Your task to perform on an android device: Clear the cart on ebay. Add "lenovo thinkpad" to the cart on ebay, then select checkout. Image 0: 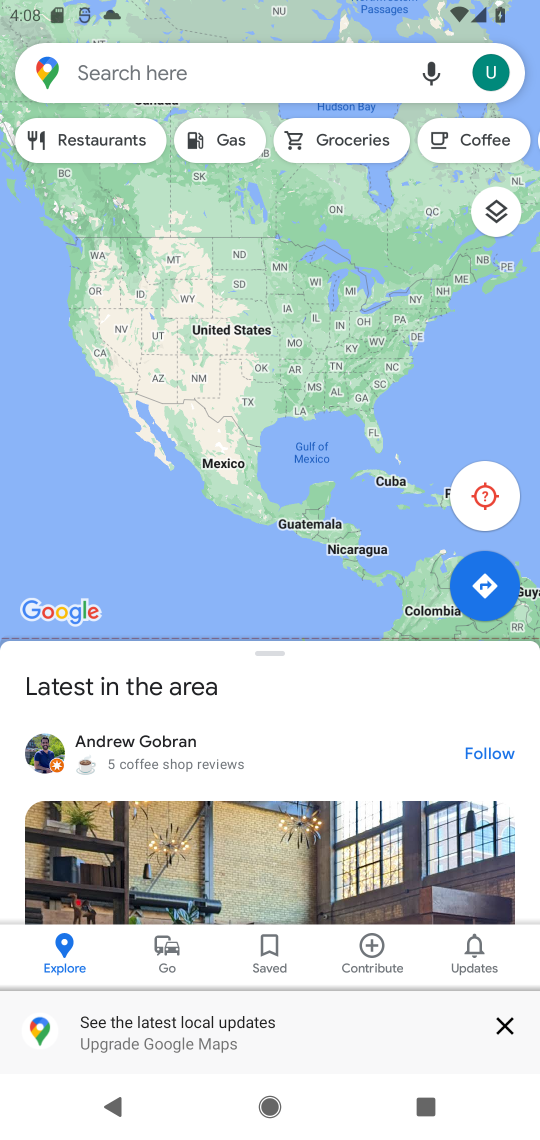
Step 0: press home button
Your task to perform on an android device: Clear the cart on ebay. Add "lenovo thinkpad" to the cart on ebay, then select checkout. Image 1: 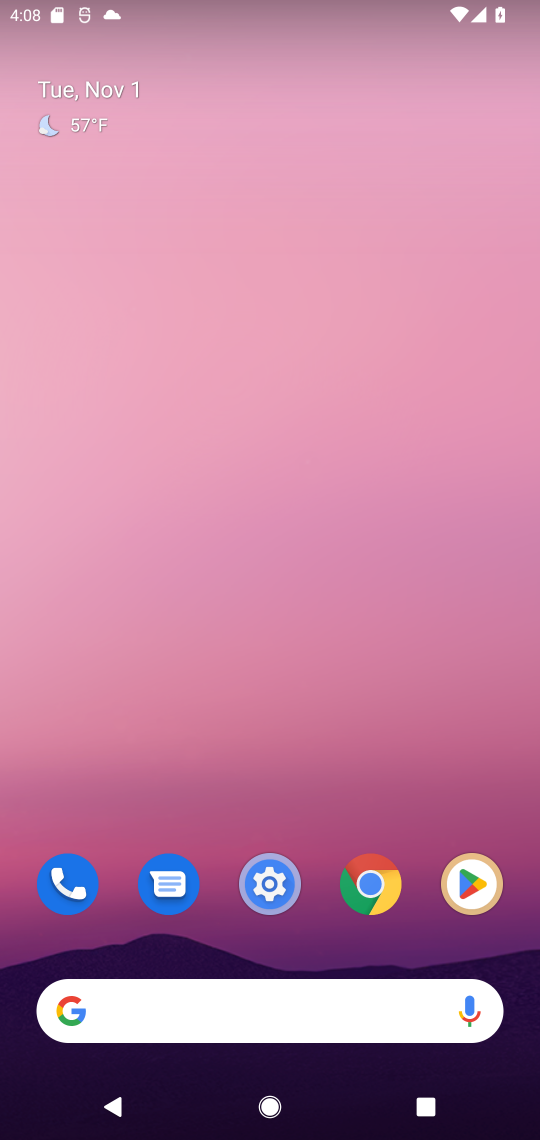
Step 1: click (102, 1015)
Your task to perform on an android device: Clear the cart on ebay. Add "lenovo thinkpad" to the cart on ebay, then select checkout. Image 2: 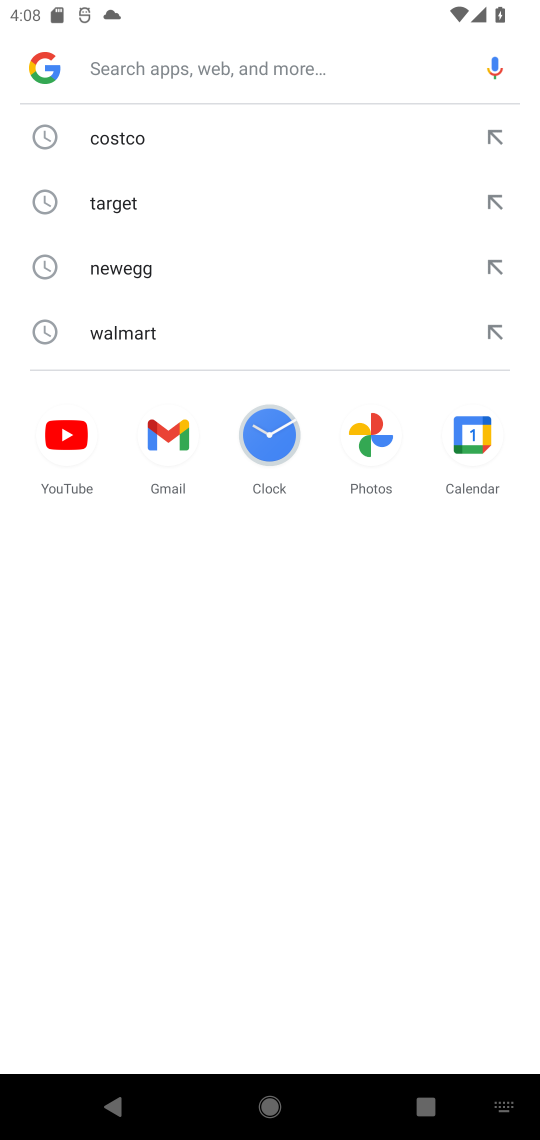
Step 2: type "ebay"
Your task to perform on an android device: Clear the cart on ebay. Add "lenovo thinkpad" to the cart on ebay, then select checkout. Image 3: 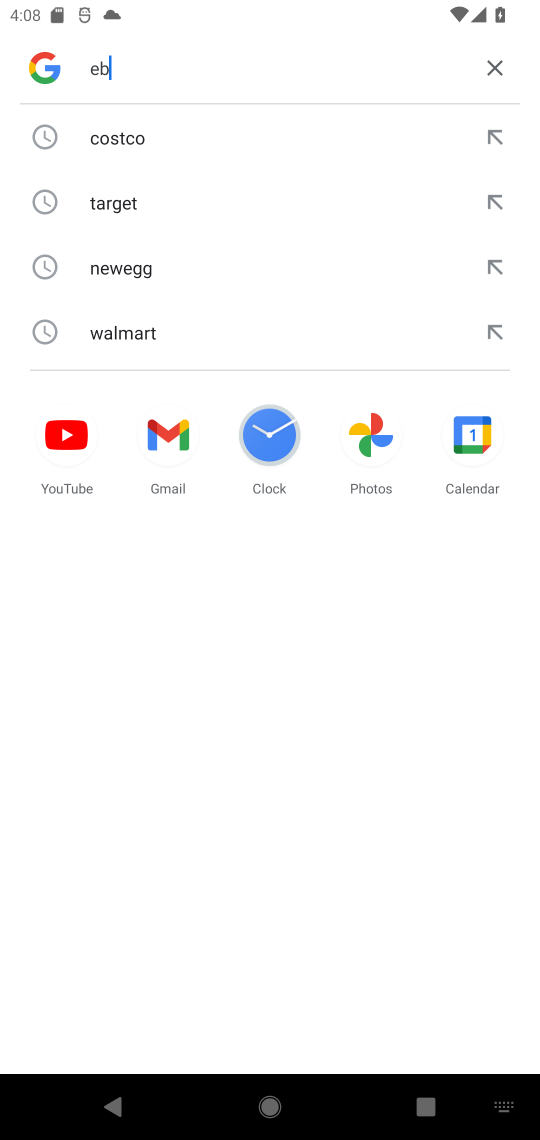
Step 3: press enter
Your task to perform on an android device: Clear the cart on ebay. Add "lenovo thinkpad" to the cart on ebay, then select checkout. Image 4: 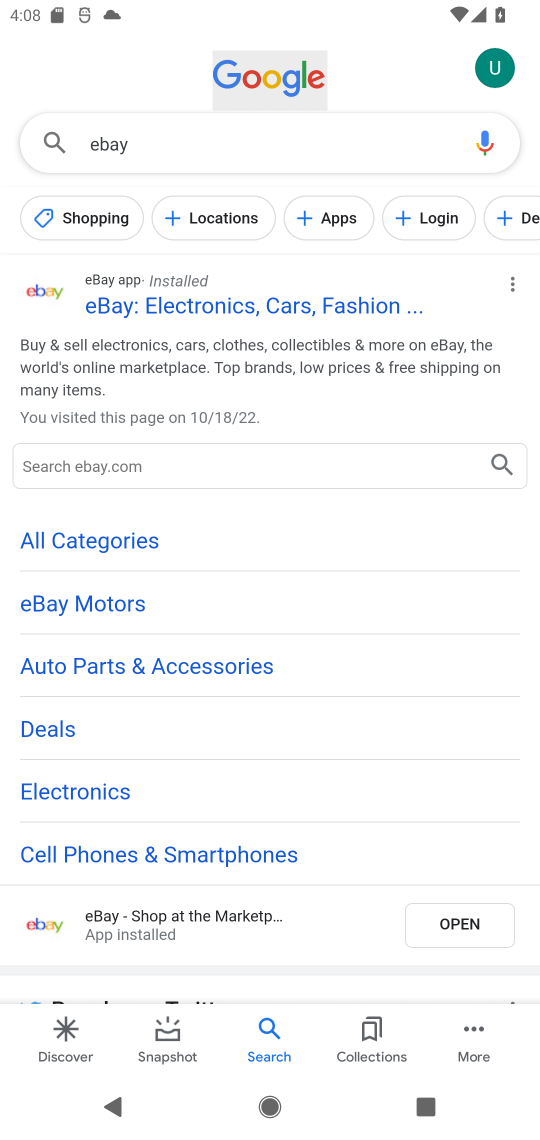
Step 4: click (128, 525)
Your task to perform on an android device: Clear the cart on ebay. Add "lenovo thinkpad" to the cart on ebay, then select checkout. Image 5: 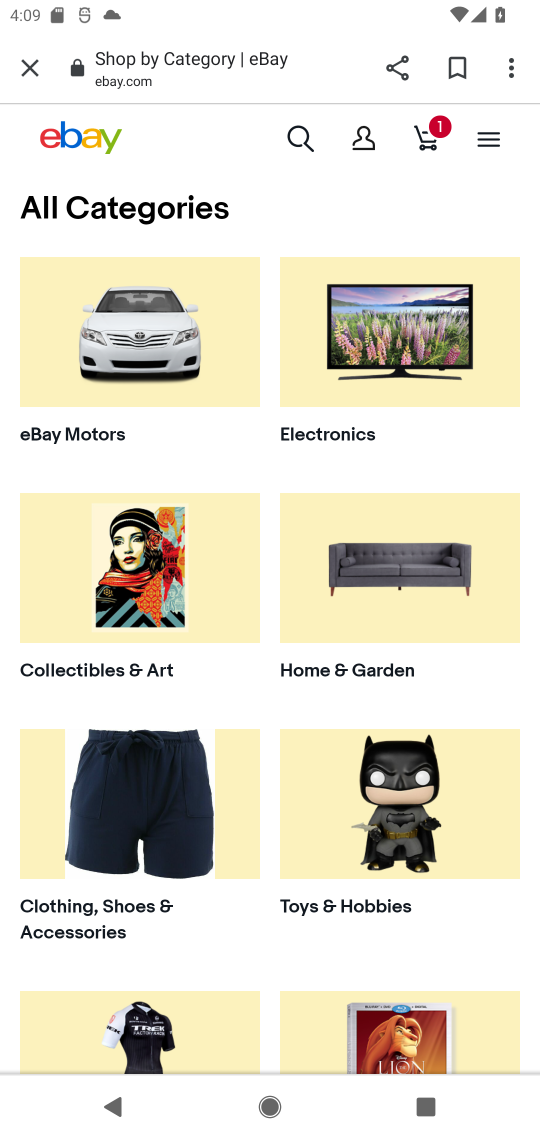
Step 5: click (430, 128)
Your task to perform on an android device: Clear the cart on ebay. Add "lenovo thinkpad" to the cart on ebay, then select checkout. Image 6: 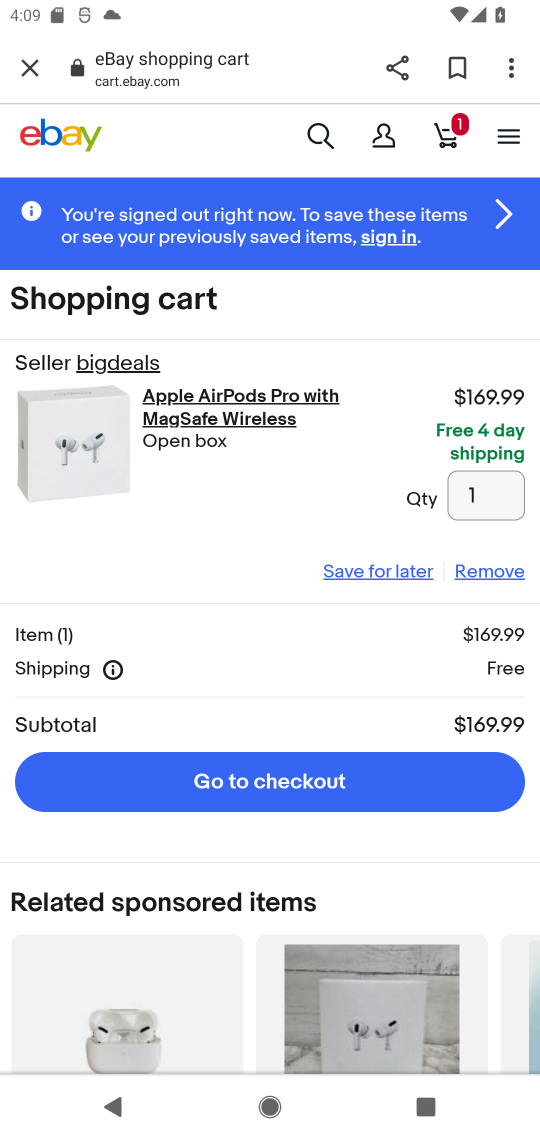
Step 6: click (506, 569)
Your task to perform on an android device: Clear the cart on ebay. Add "lenovo thinkpad" to the cart on ebay, then select checkout. Image 7: 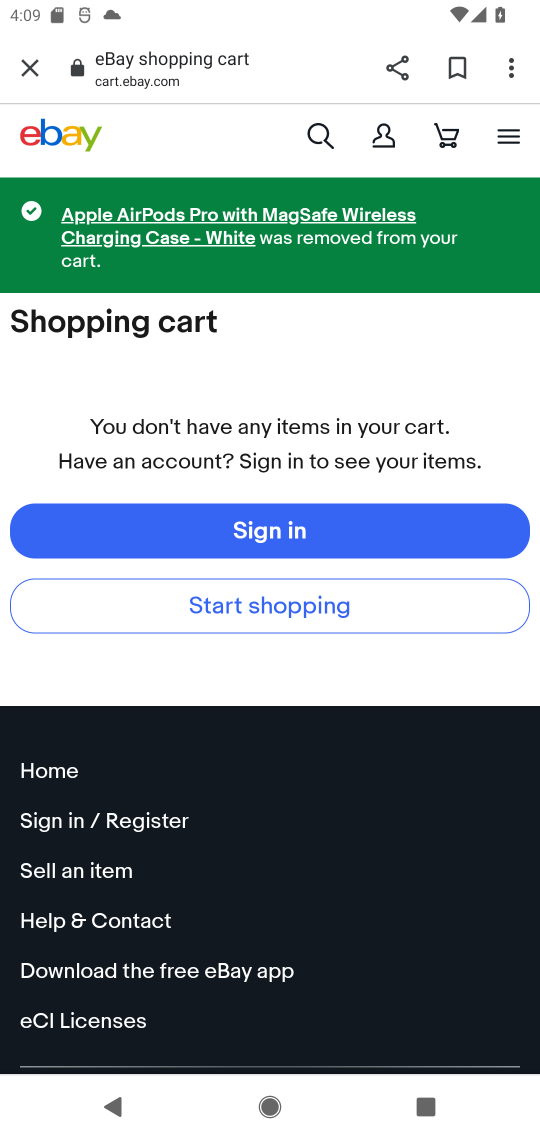
Step 7: click (311, 125)
Your task to perform on an android device: Clear the cart on ebay. Add "lenovo thinkpad" to the cart on ebay, then select checkout. Image 8: 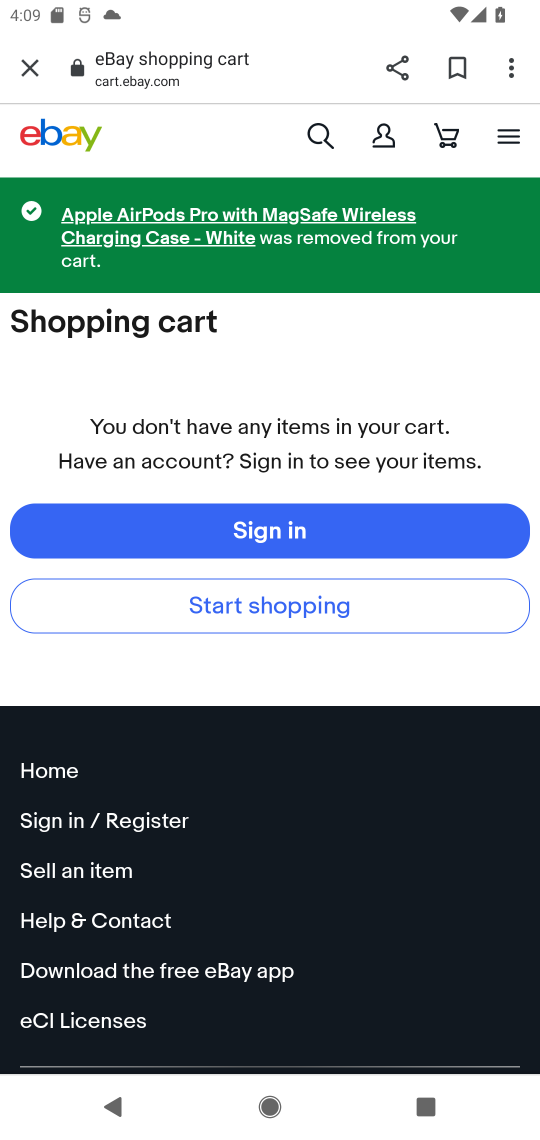
Step 8: click (322, 128)
Your task to perform on an android device: Clear the cart on ebay. Add "lenovo thinkpad" to the cart on ebay, then select checkout. Image 9: 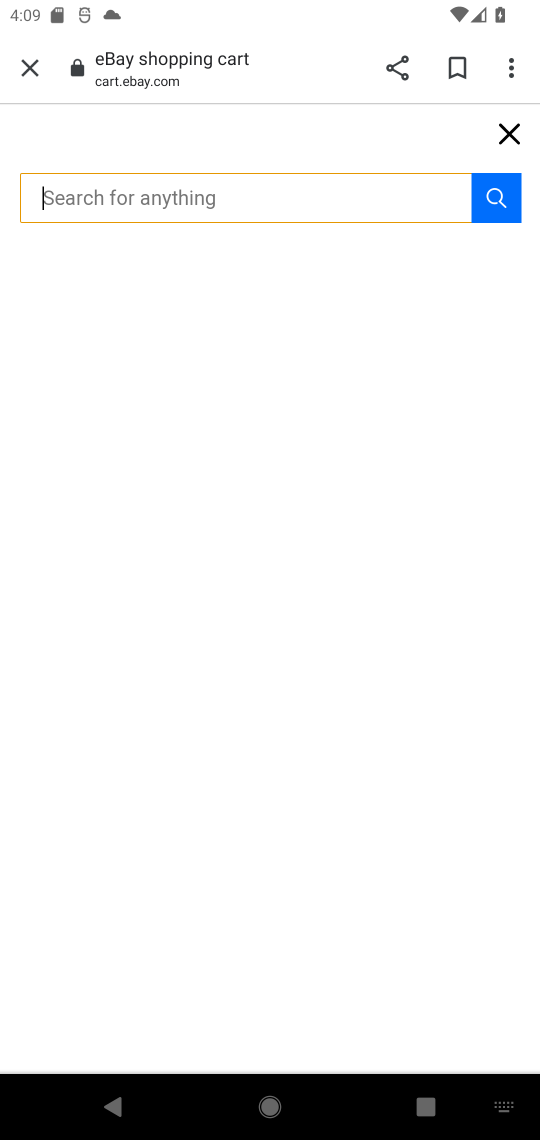
Step 9: press enter
Your task to perform on an android device: Clear the cart on ebay. Add "lenovo thinkpad" to the cart on ebay, then select checkout. Image 10: 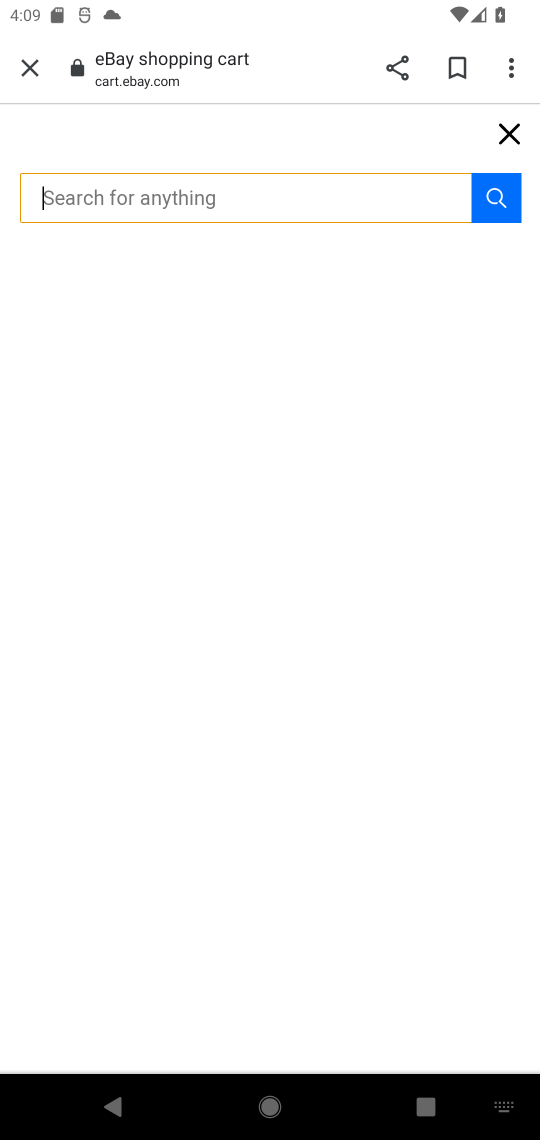
Step 10: type "lenovo thinkpad"
Your task to perform on an android device: Clear the cart on ebay. Add "lenovo thinkpad" to the cart on ebay, then select checkout. Image 11: 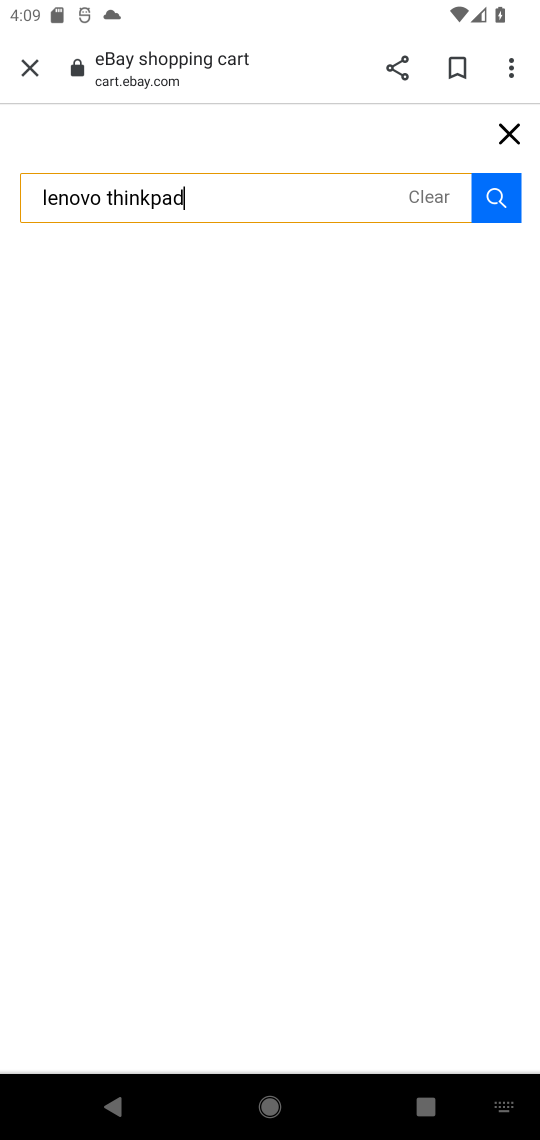
Step 11: click (494, 198)
Your task to perform on an android device: Clear the cart on ebay. Add "lenovo thinkpad" to the cart on ebay, then select checkout. Image 12: 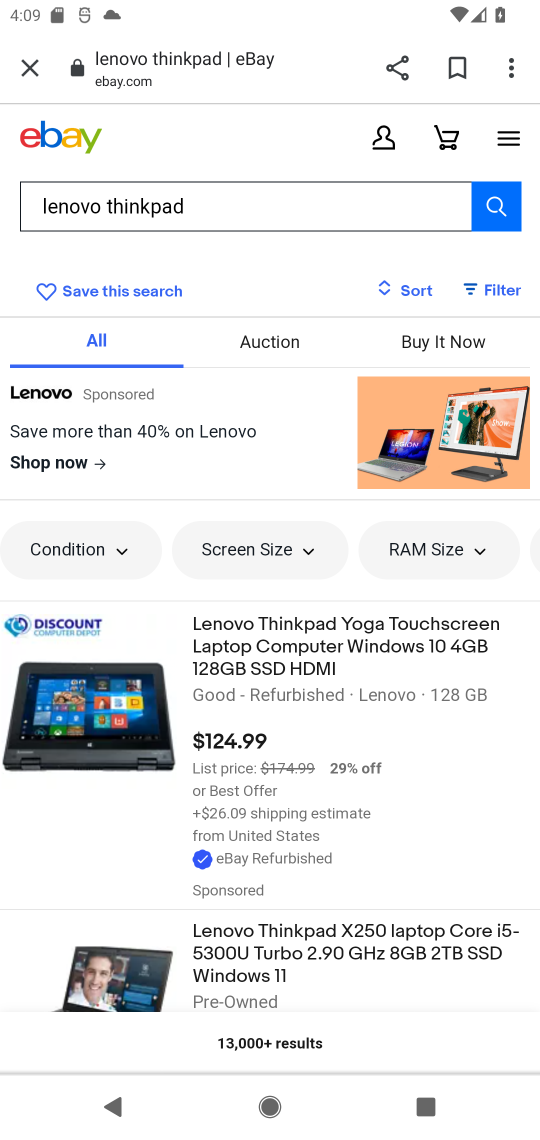
Step 12: drag from (400, 911) to (366, 629)
Your task to perform on an android device: Clear the cart on ebay. Add "lenovo thinkpad" to the cart on ebay, then select checkout. Image 13: 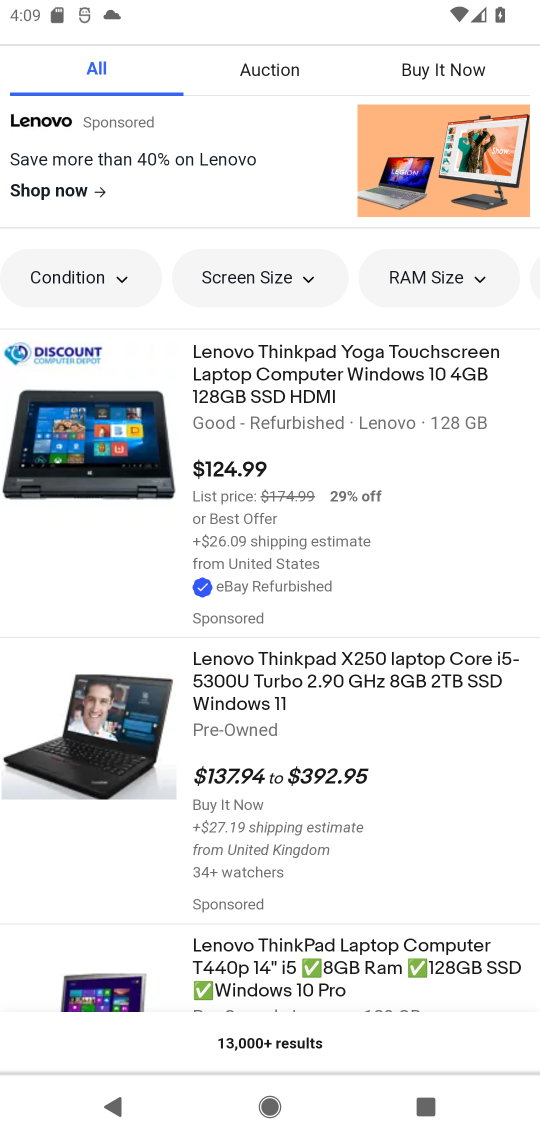
Step 13: click (291, 364)
Your task to perform on an android device: Clear the cart on ebay. Add "lenovo thinkpad" to the cart on ebay, then select checkout. Image 14: 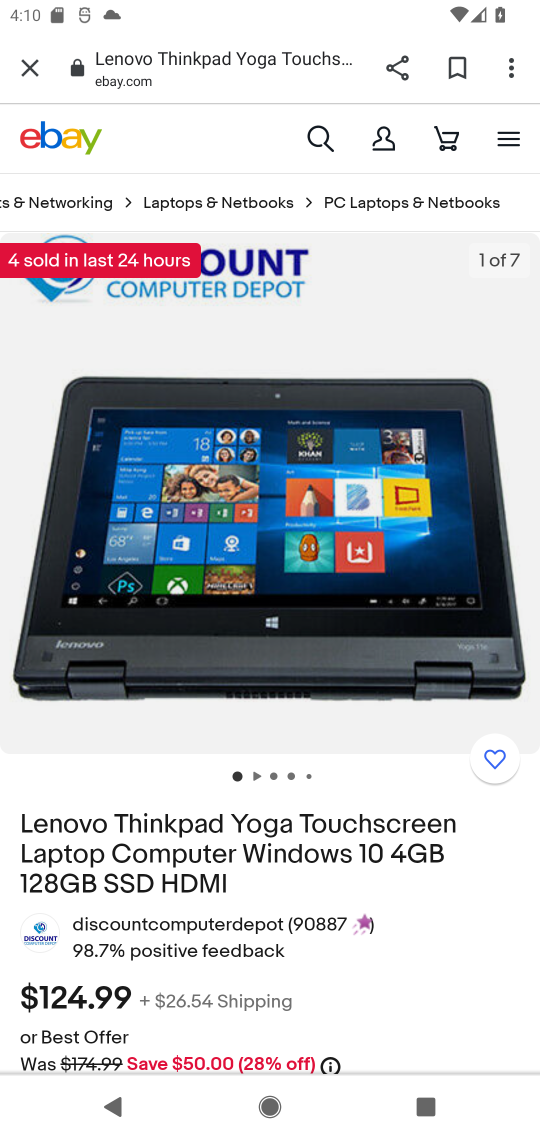
Step 14: drag from (326, 887) to (339, 463)
Your task to perform on an android device: Clear the cart on ebay. Add "lenovo thinkpad" to the cart on ebay, then select checkout. Image 15: 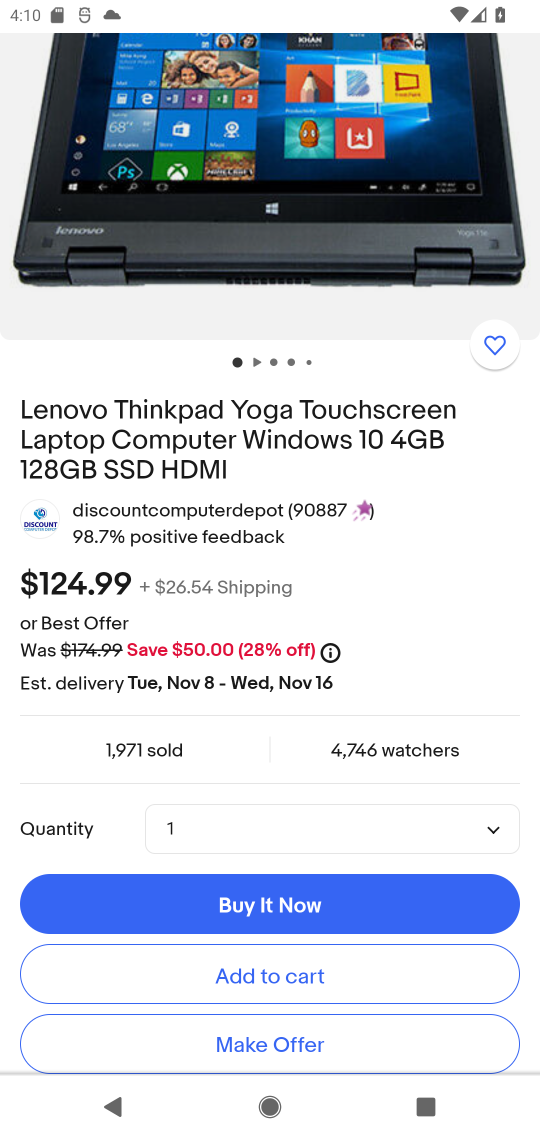
Step 15: drag from (349, 844) to (344, 528)
Your task to perform on an android device: Clear the cart on ebay. Add "lenovo thinkpad" to the cart on ebay, then select checkout. Image 16: 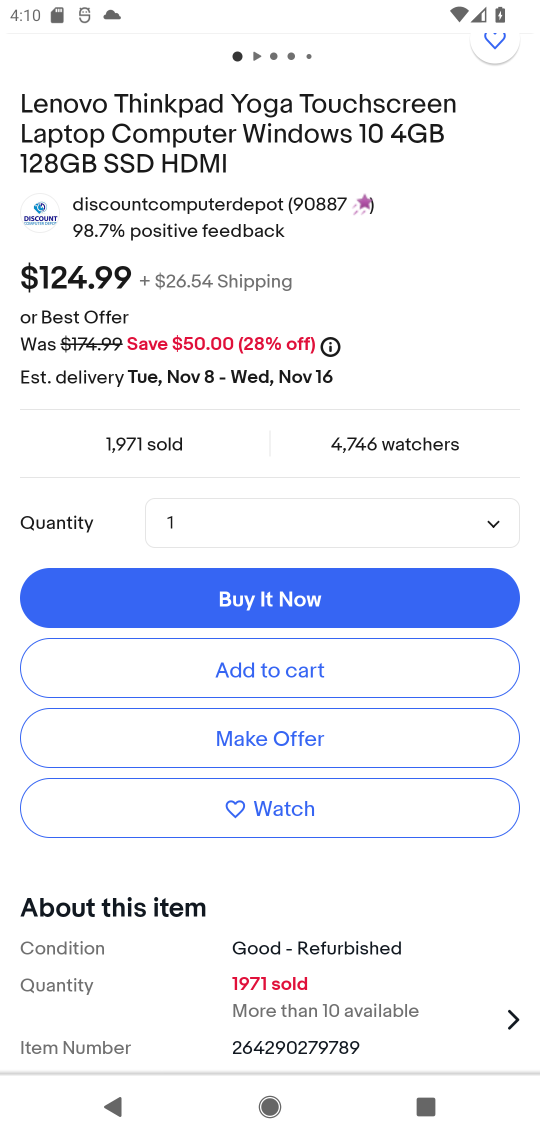
Step 16: click (346, 678)
Your task to perform on an android device: Clear the cart on ebay. Add "lenovo thinkpad" to the cart on ebay, then select checkout. Image 17: 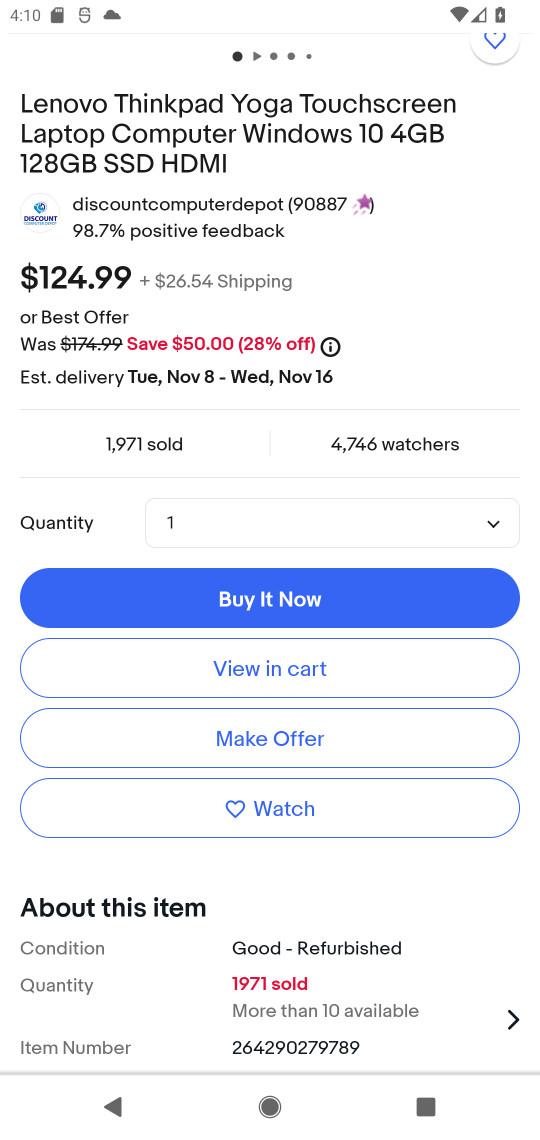
Step 17: click (265, 682)
Your task to perform on an android device: Clear the cart on ebay. Add "lenovo thinkpad" to the cart on ebay, then select checkout. Image 18: 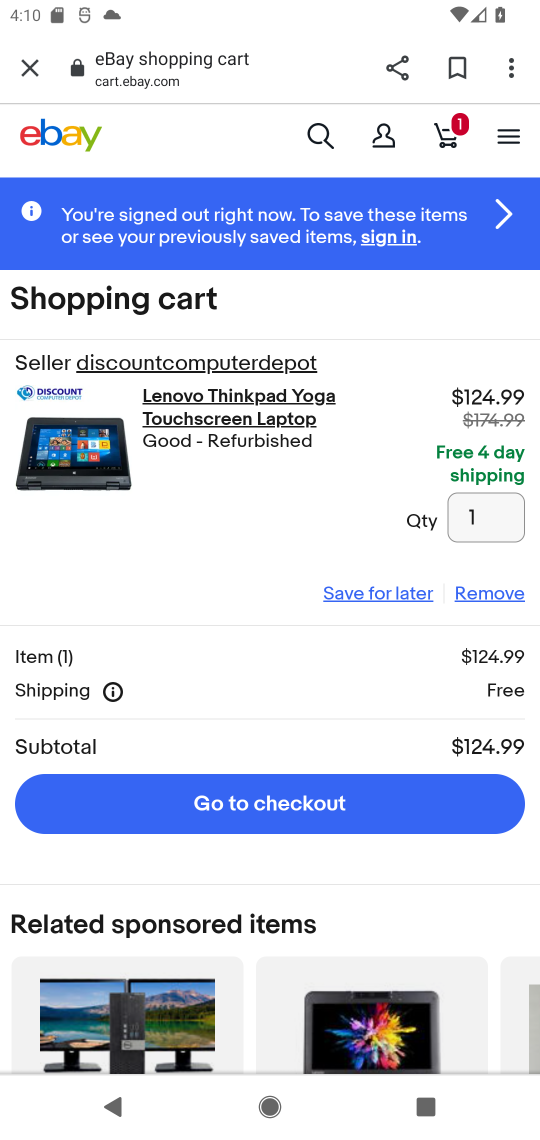
Step 18: click (286, 812)
Your task to perform on an android device: Clear the cart on ebay. Add "lenovo thinkpad" to the cart on ebay, then select checkout. Image 19: 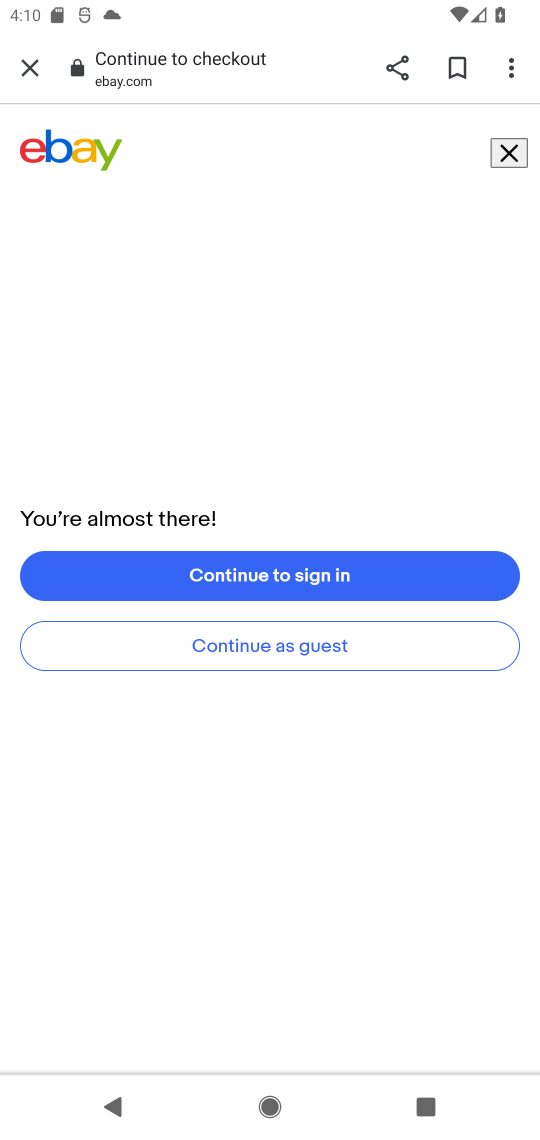
Step 19: task complete